Your task to perform on an android device: When is my next meeting? Image 0: 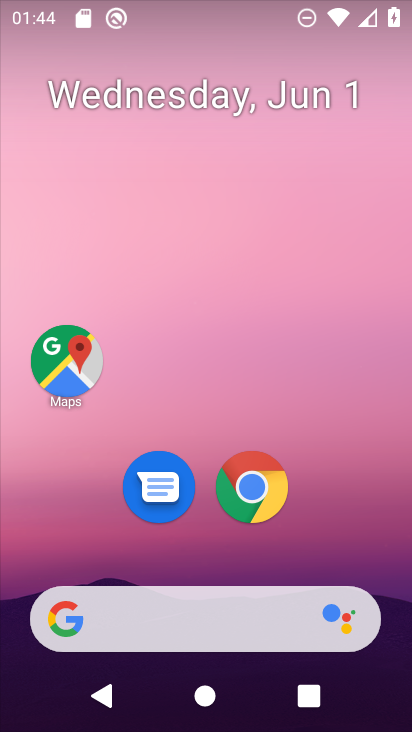
Step 0: drag from (262, 544) to (265, 188)
Your task to perform on an android device: When is my next meeting? Image 1: 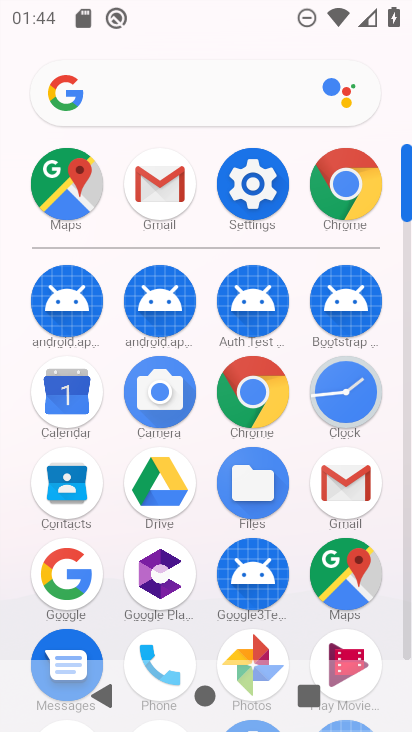
Step 1: click (60, 386)
Your task to perform on an android device: When is my next meeting? Image 2: 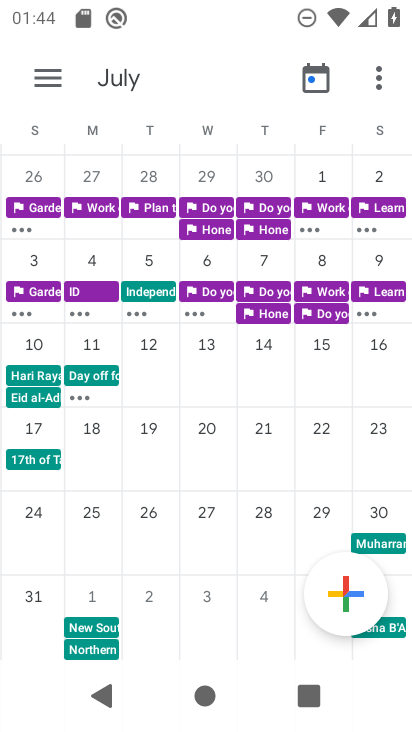
Step 2: drag from (54, 181) to (351, 209)
Your task to perform on an android device: When is my next meeting? Image 3: 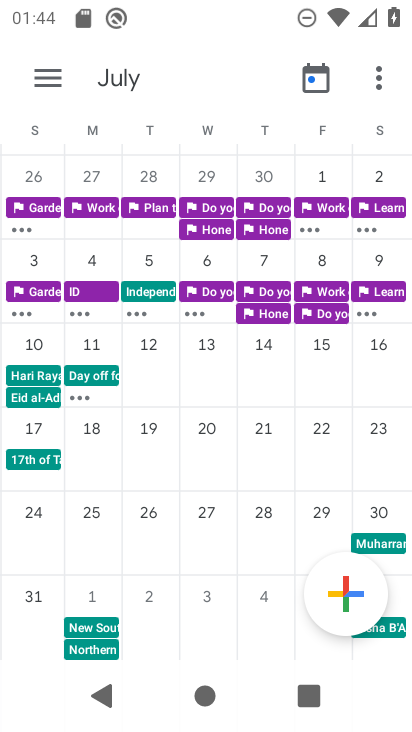
Step 3: drag from (101, 251) to (390, 251)
Your task to perform on an android device: When is my next meeting? Image 4: 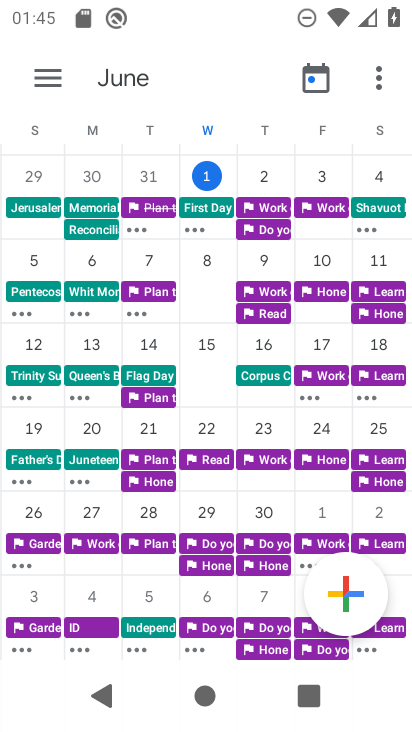
Step 4: click (257, 176)
Your task to perform on an android device: When is my next meeting? Image 5: 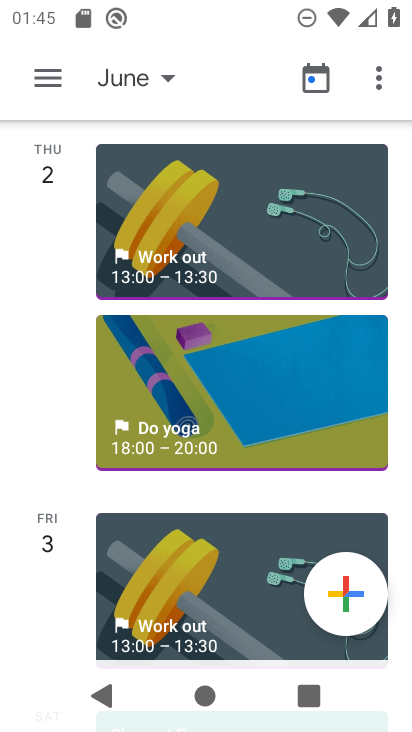
Step 5: task complete